Your task to perform on an android device: open app "DoorDash - Food Delivery" (install if not already installed) and enter user name: "Richard@outlook.com" and password: "informally" Image 0: 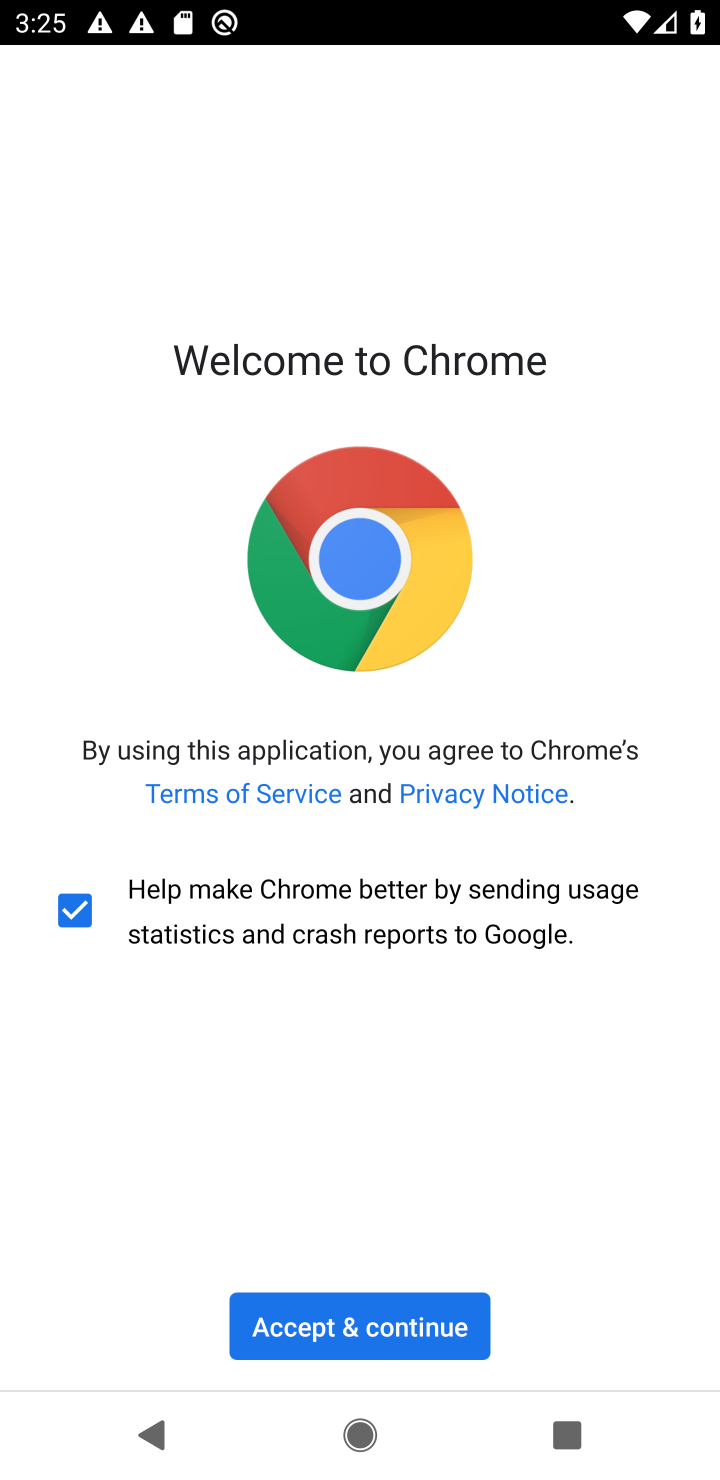
Step 0: press home button
Your task to perform on an android device: open app "DoorDash - Food Delivery" (install if not already installed) and enter user name: "Richard@outlook.com" and password: "informally" Image 1: 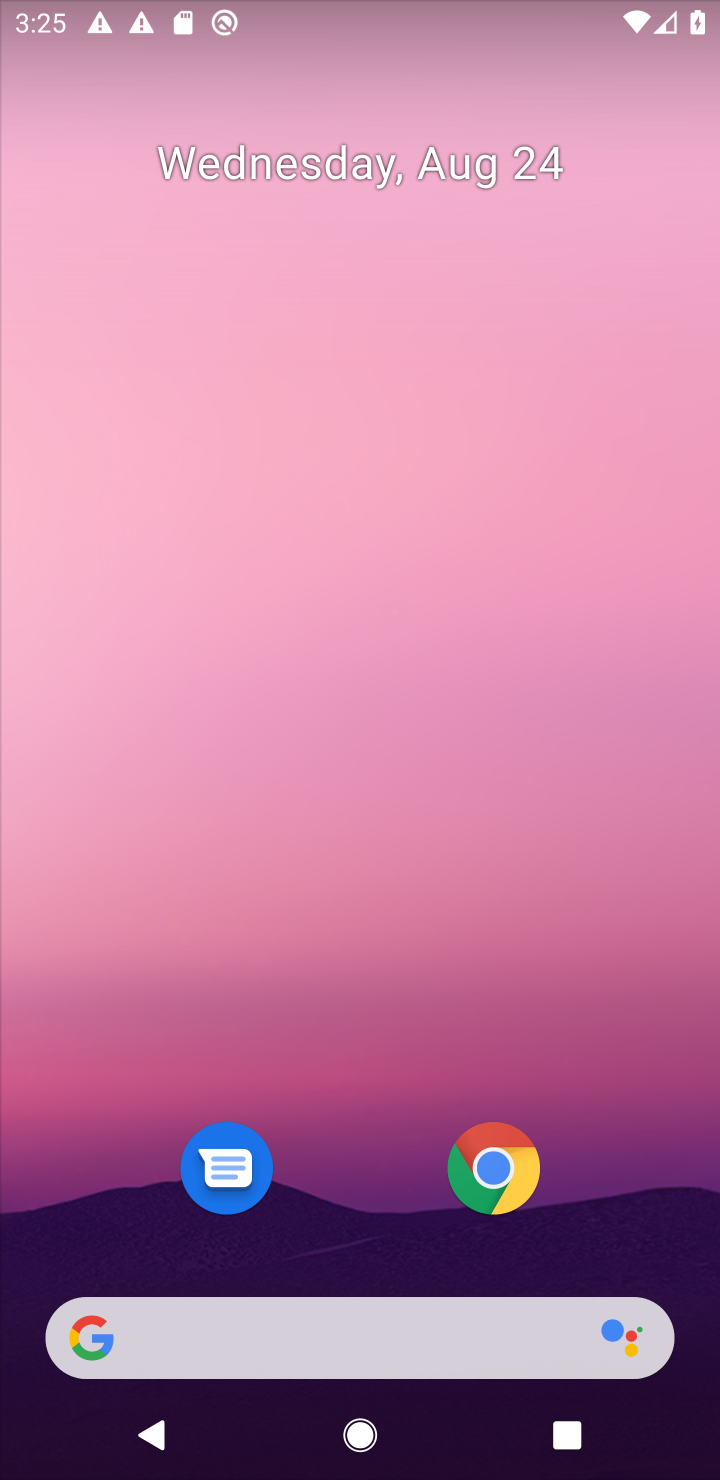
Step 1: drag from (698, 1282) to (642, 298)
Your task to perform on an android device: open app "DoorDash - Food Delivery" (install if not already installed) and enter user name: "Richard@outlook.com" and password: "informally" Image 2: 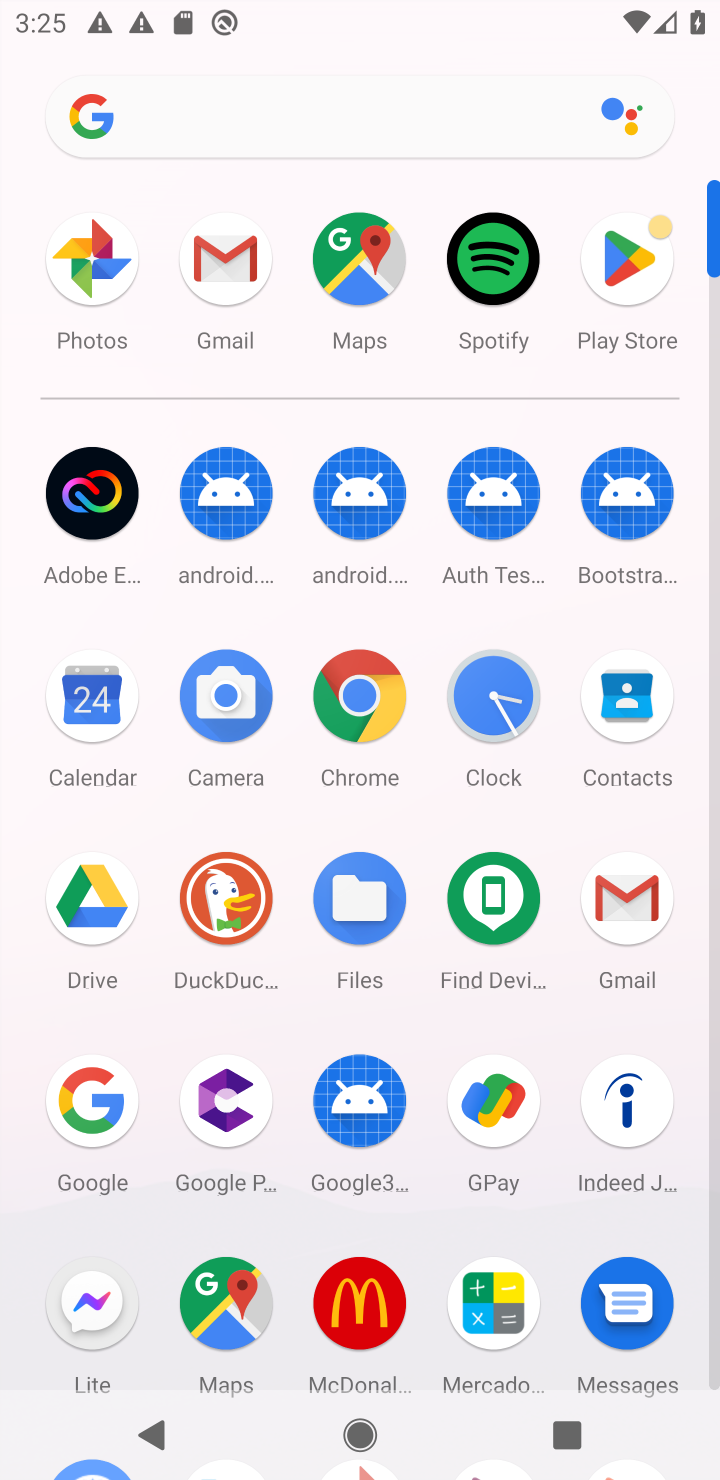
Step 2: click (716, 1338)
Your task to perform on an android device: open app "DoorDash - Food Delivery" (install if not already installed) and enter user name: "Richard@outlook.com" and password: "informally" Image 3: 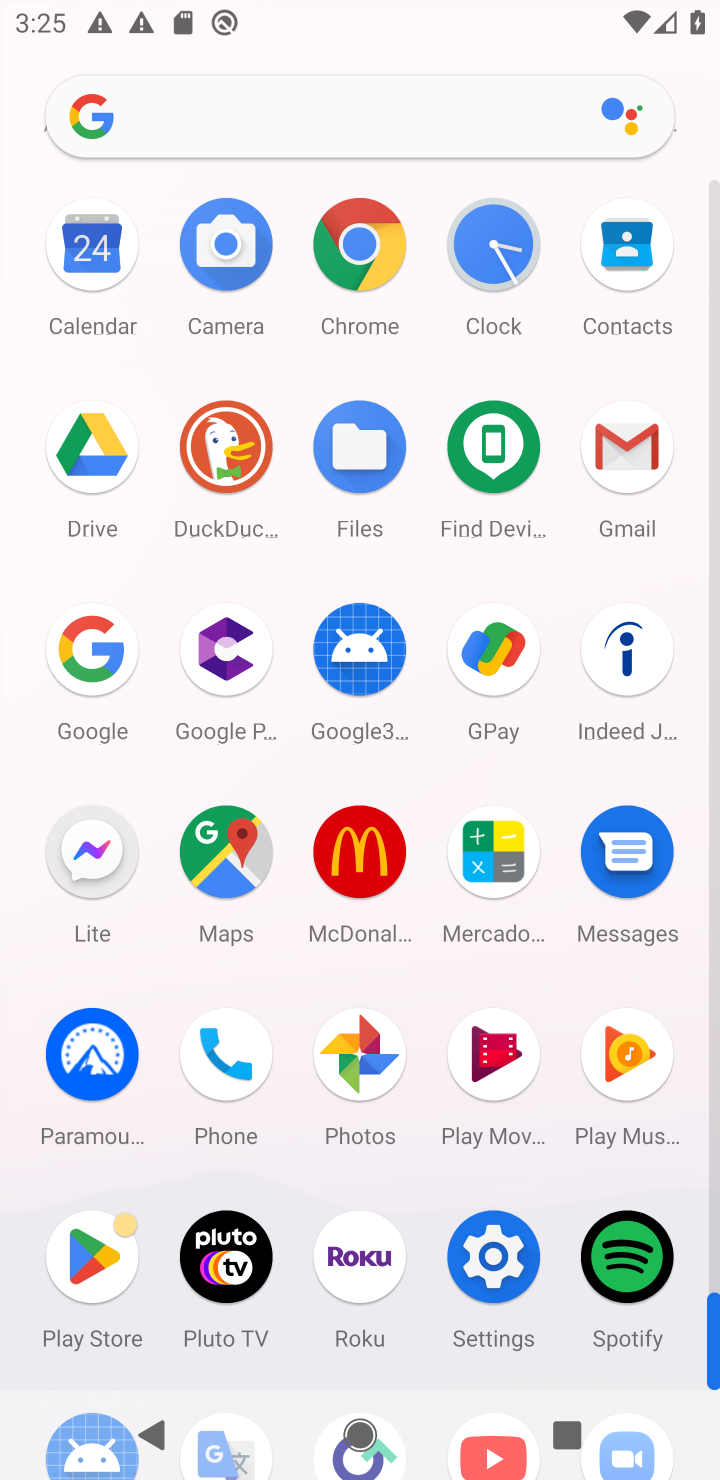
Step 3: click (96, 1254)
Your task to perform on an android device: open app "DoorDash - Food Delivery" (install if not already installed) and enter user name: "Richard@outlook.com" and password: "informally" Image 4: 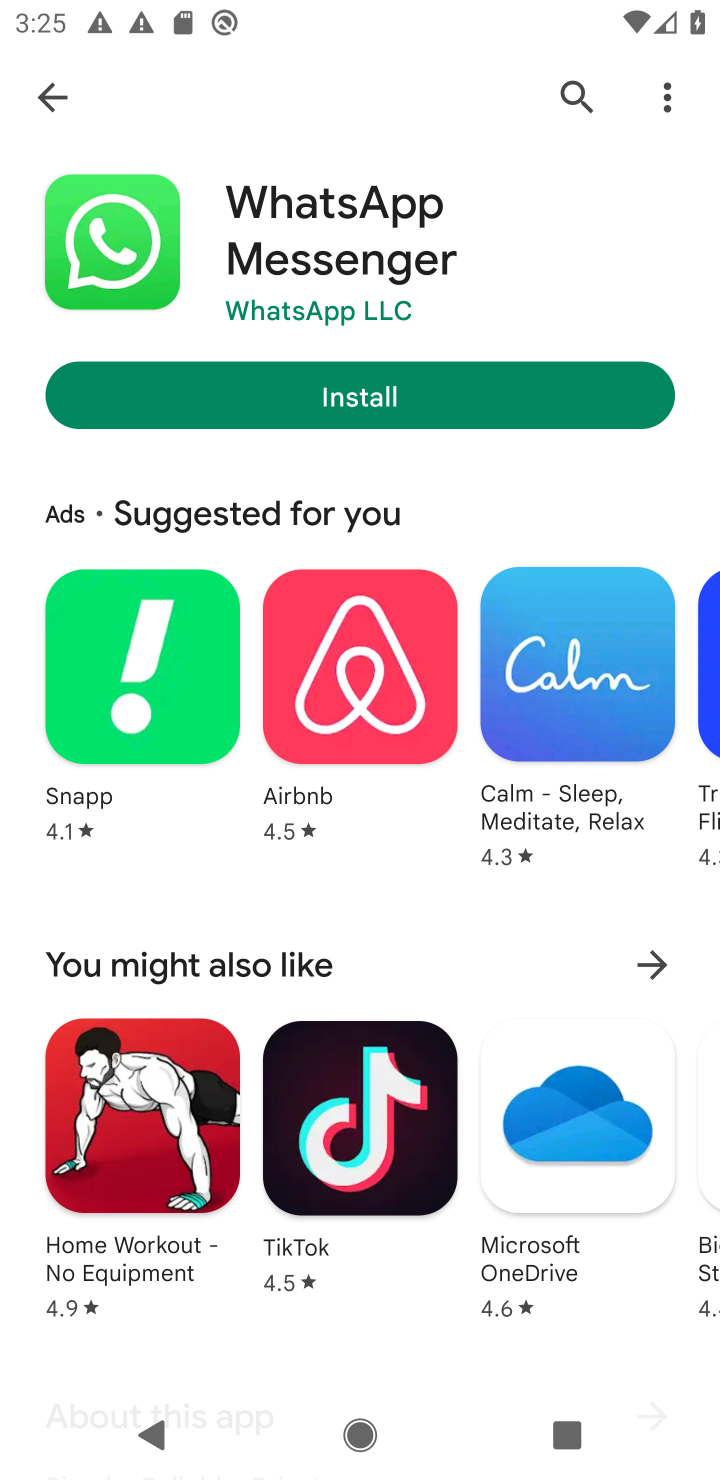
Step 4: click (570, 97)
Your task to perform on an android device: open app "DoorDash - Food Delivery" (install if not already installed) and enter user name: "Richard@outlook.com" and password: "informally" Image 5: 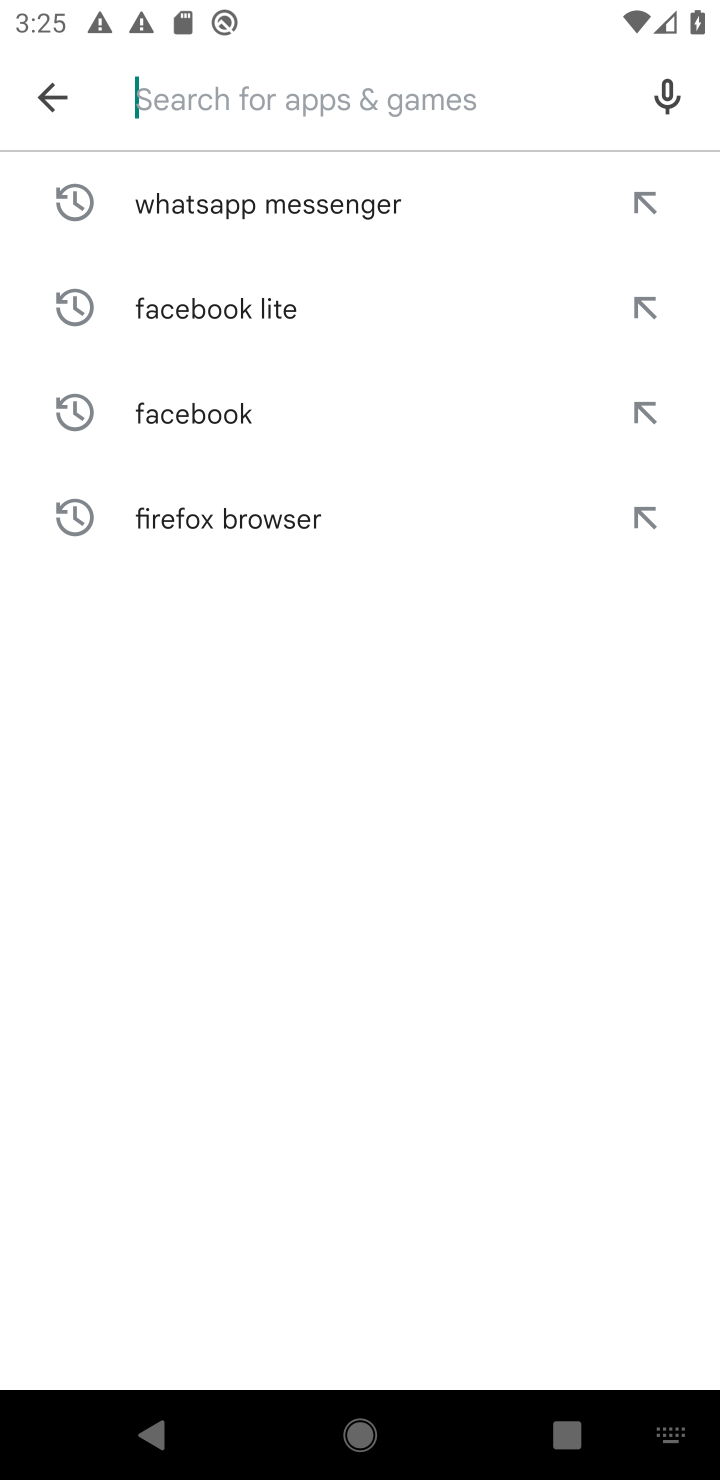
Step 5: type "DoorDash - Food Delivery"
Your task to perform on an android device: open app "DoorDash - Food Delivery" (install if not already installed) and enter user name: "Richard@outlook.com" and password: "informally" Image 6: 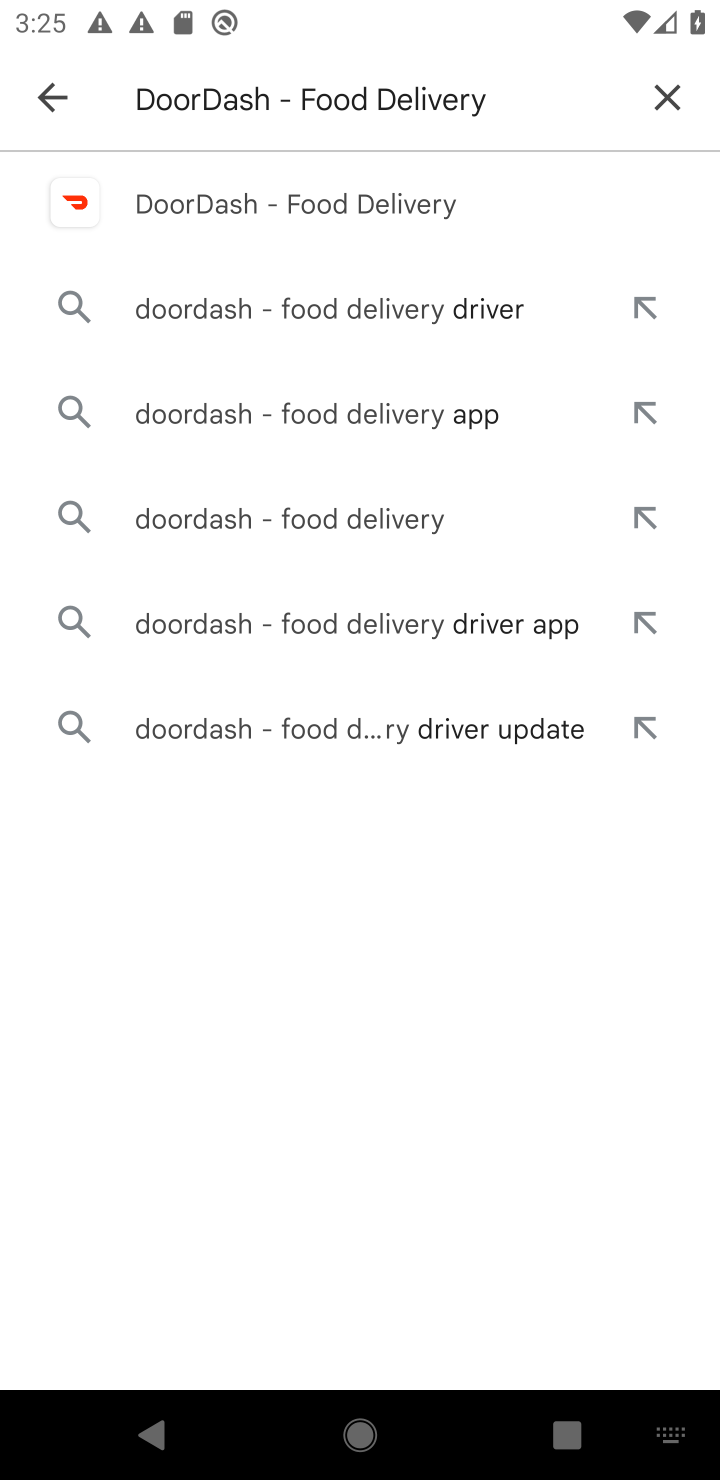
Step 6: click (285, 193)
Your task to perform on an android device: open app "DoorDash - Food Delivery" (install if not already installed) and enter user name: "Richard@outlook.com" and password: "informally" Image 7: 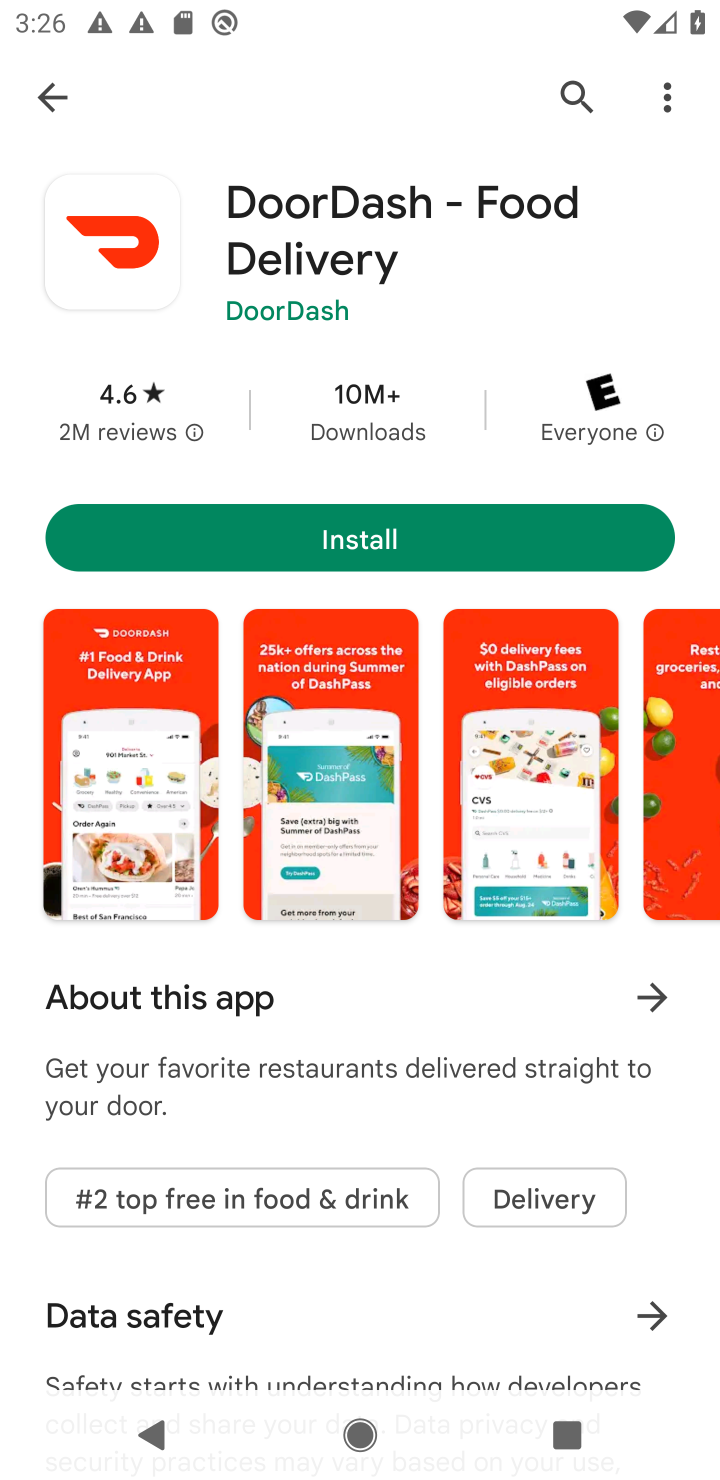
Step 7: click (359, 535)
Your task to perform on an android device: open app "DoorDash - Food Delivery" (install if not already installed) and enter user name: "Richard@outlook.com" and password: "informally" Image 8: 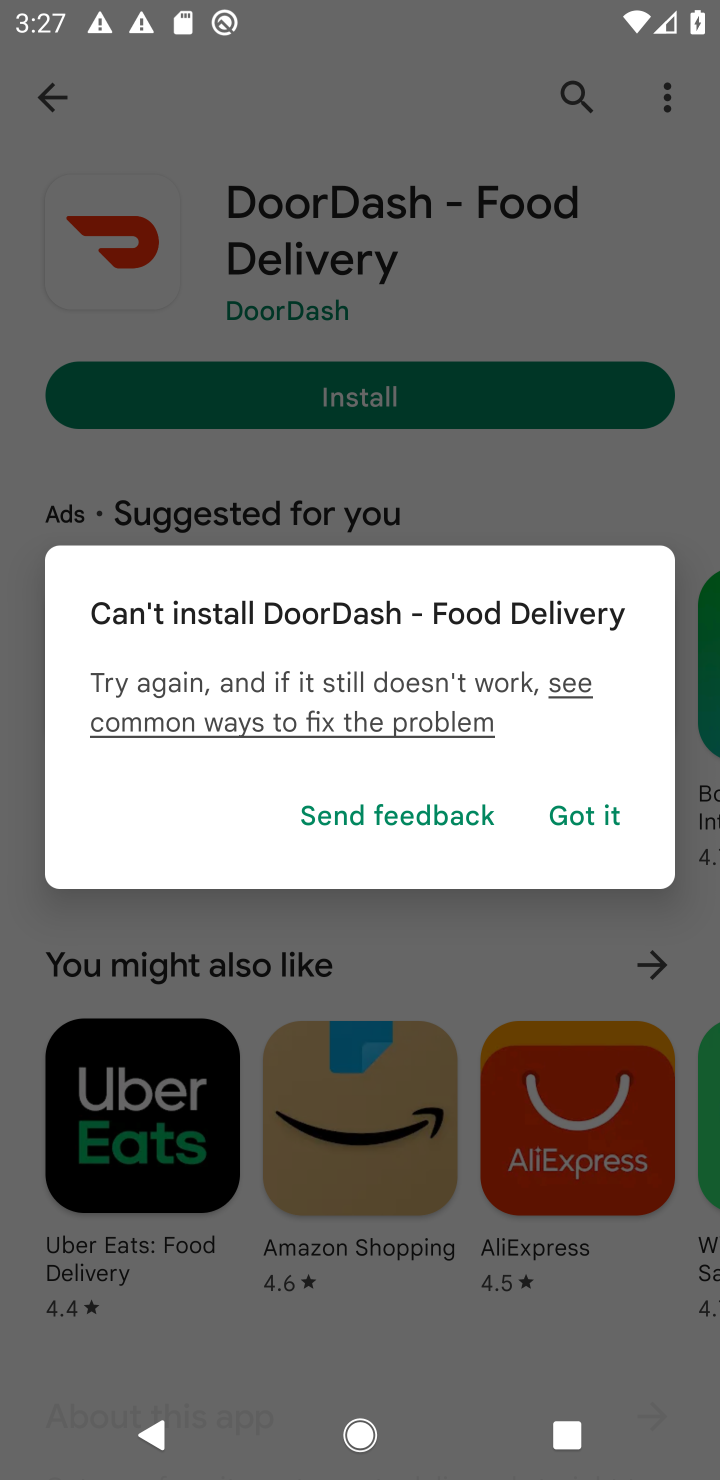
Step 8: click (593, 799)
Your task to perform on an android device: open app "DoorDash - Food Delivery" (install if not already installed) and enter user name: "Richard@outlook.com" and password: "informally" Image 9: 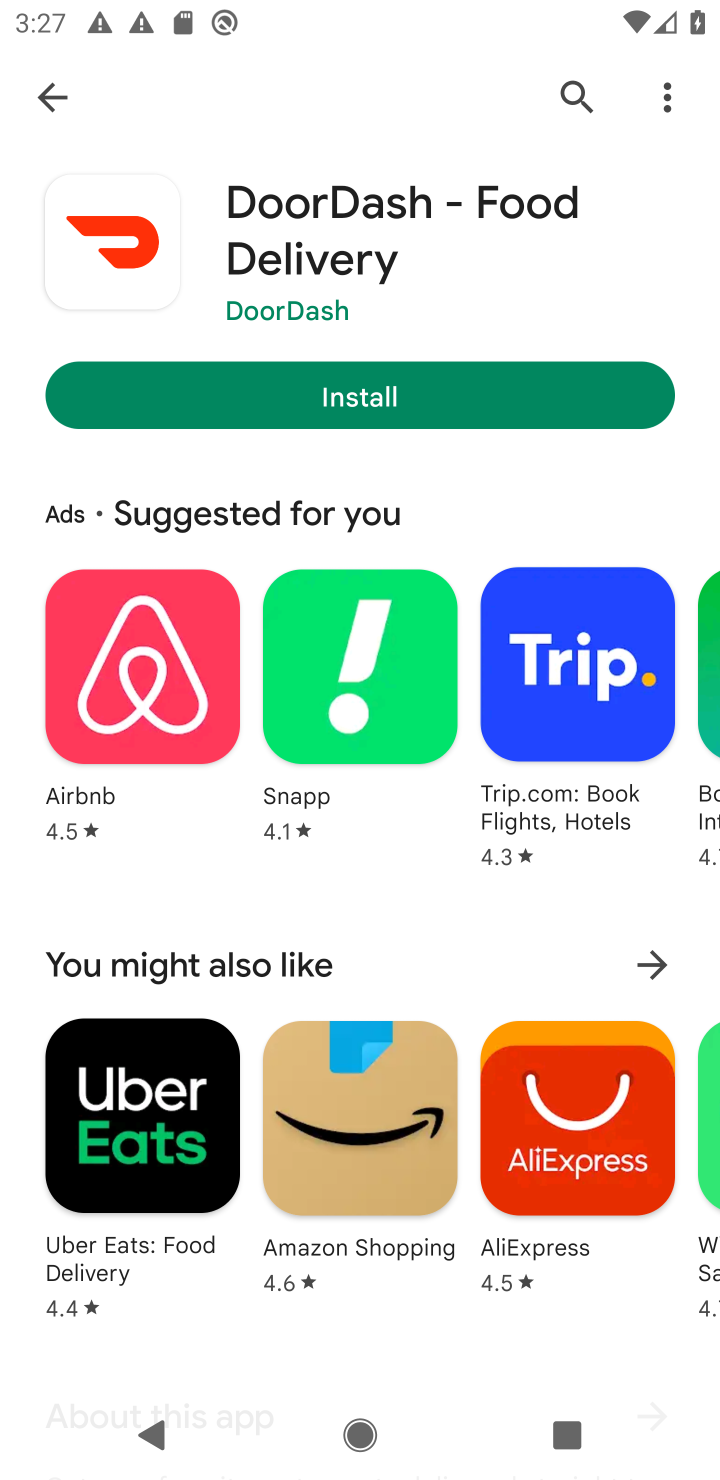
Step 9: task complete